Your task to perform on an android device: set the stopwatch Image 0: 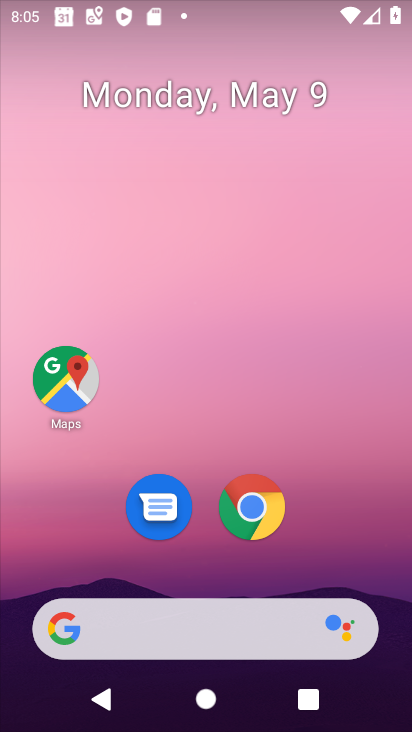
Step 0: click (284, 64)
Your task to perform on an android device: set the stopwatch Image 1: 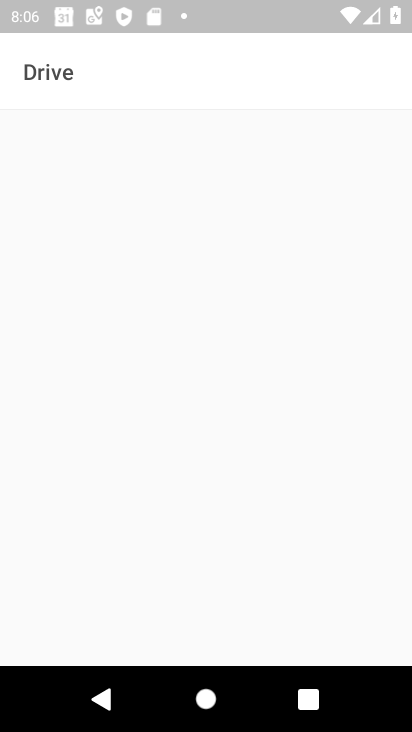
Step 1: press home button
Your task to perform on an android device: set the stopwatch Image 2: 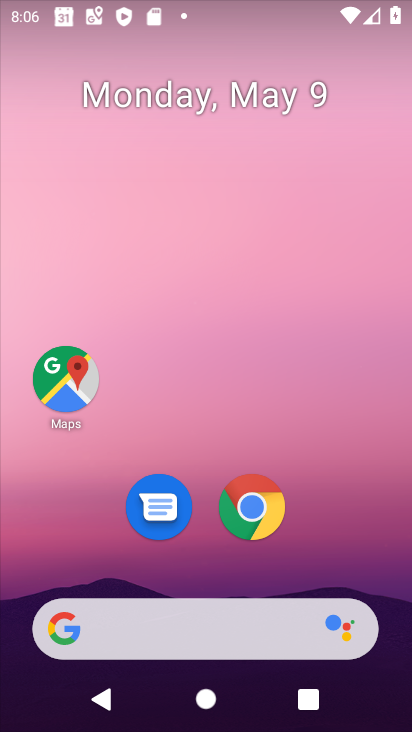
Step 2: drag from (321, 659) to (361, 85)
Your task to perform on an android device: set the stopwatch Image 3: 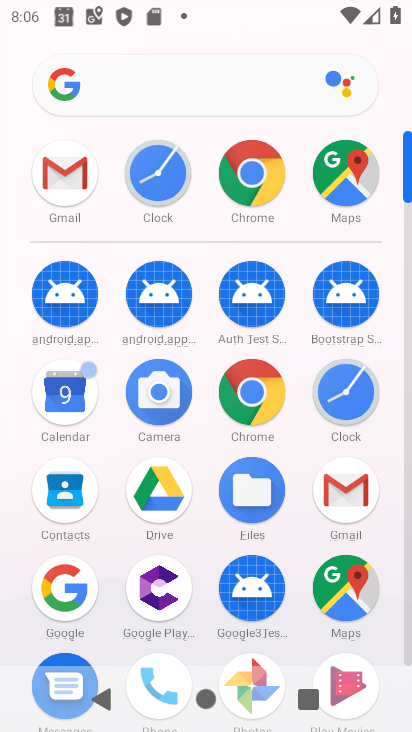
Step 3: click (157, 193)
Your task to perform on an android device: set the stopwatch Image 4: 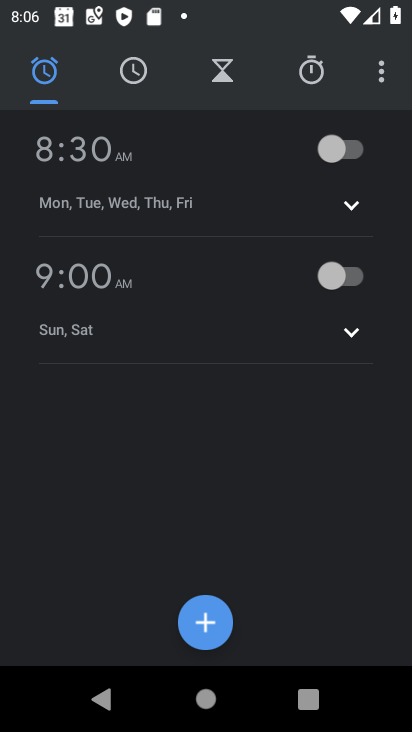
Step 4: click (288, 72)
Your task to perform on an android device: set the stopwatch Image 5: 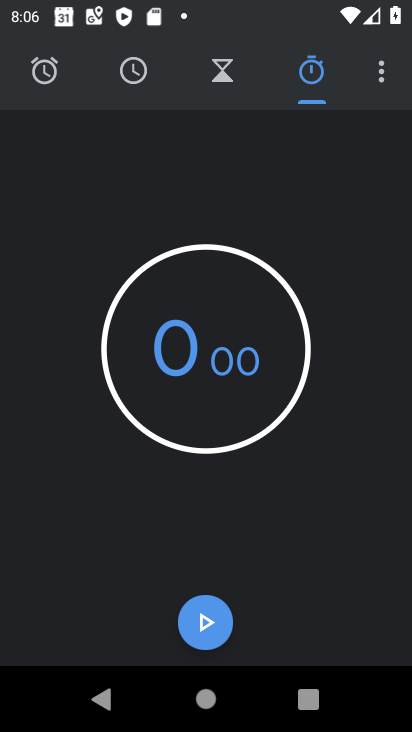
Step 5: click (204, 613)
Your task to perform on an android device: set the stopwatch Image 6: 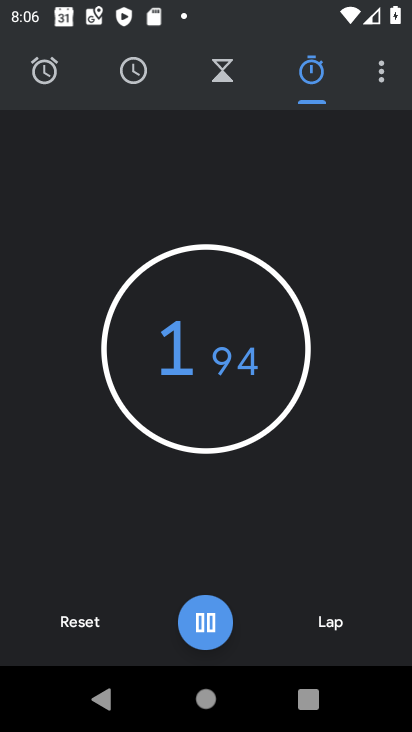
Step 6: click (207, 613)
Your task to perform on an android device: set the stopwatch Image 7: 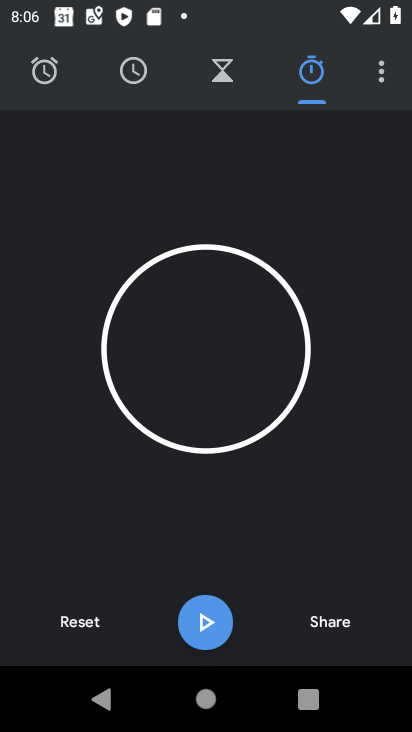
Step 7: task complete